Your task to perform on an android device: toggle sleep mode Image 0: 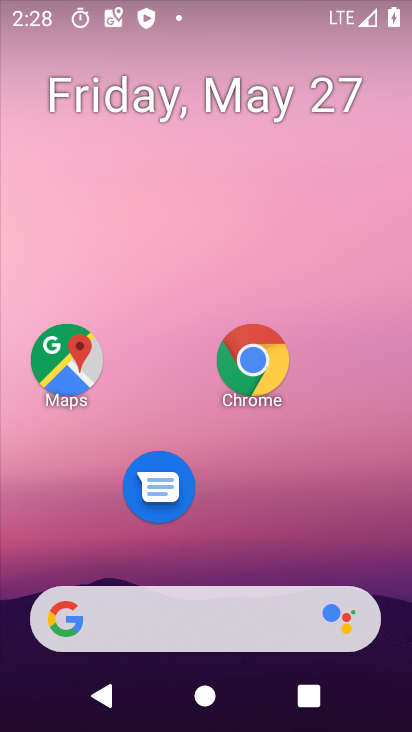
Step 0: drag from (267, 505) to (317, 94)
Your task to perform on an android device: toggle sleep mode Image 1: 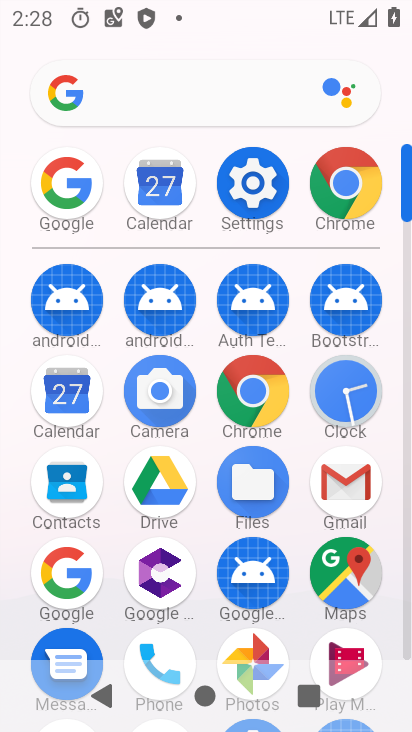
Step 1: click (253, 181)
Your task to perform on an android device: toggle sleep mode Image 2: 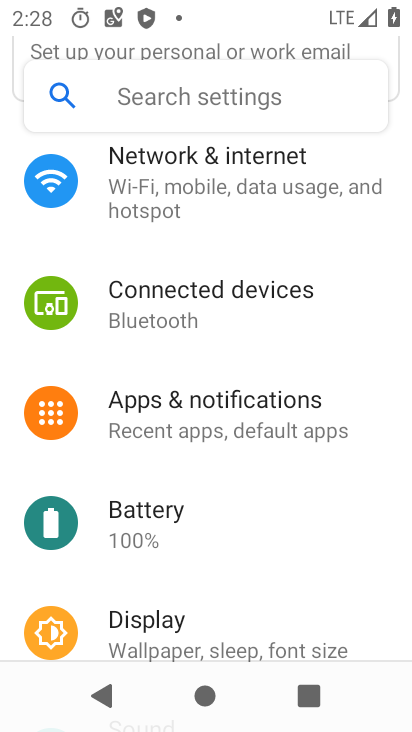
Step 2: drag from (207, 586) to (223, 395)
Your task to perform on an android device: toggle sleep mode Image 3: 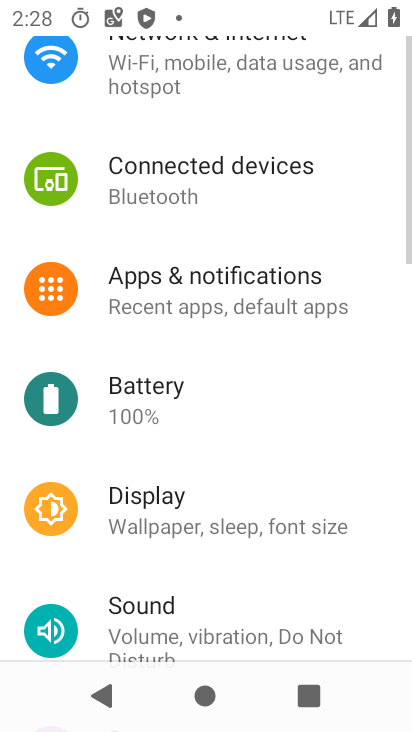
Step 3: click (153, 505)
Your task to perform on an android device: toggle sleep mode Image 4: 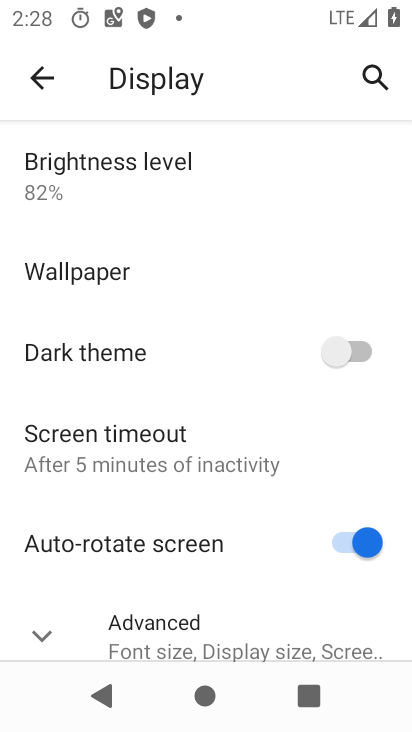
Step 4: click (157, 449)
Your task to perform on an android device: toggle sleep mode Image 5: 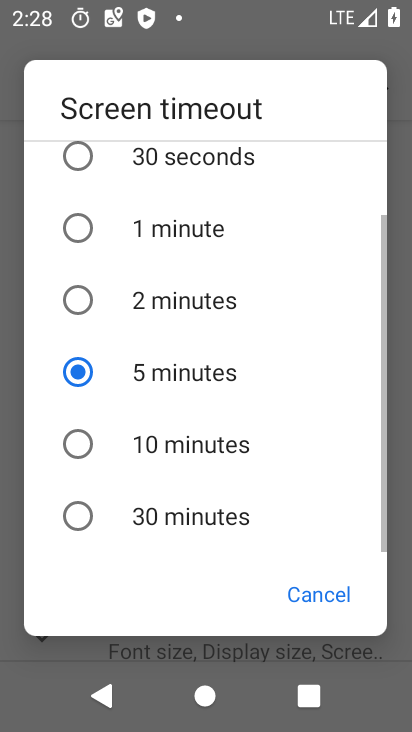
Step 5: click (84, 295)
Your task to perform on an android device: toggle sleep mode Image 6: 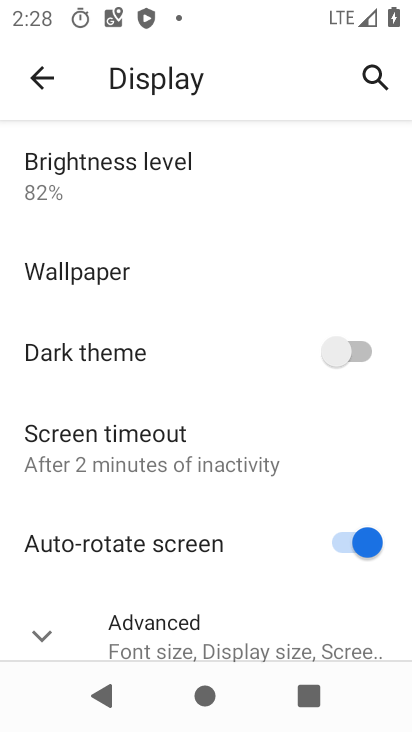
Step 6: task complete